Your task to perform on an android device: Go to display settings Image 0: 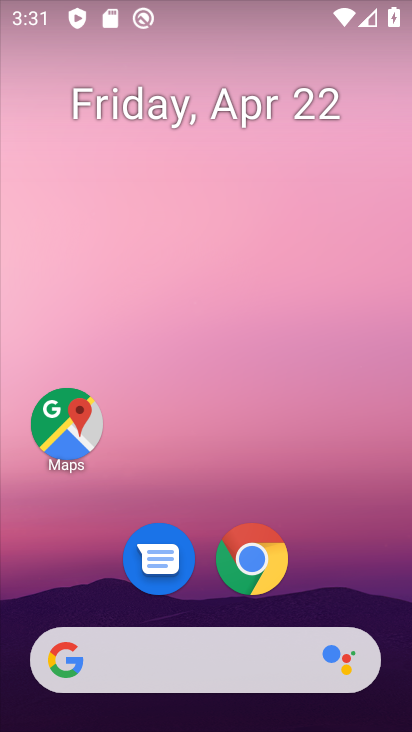
Step 0: drag from (164, 539) to (271, 81)
Your task to perform on an android device: Go to display settings Image 1: 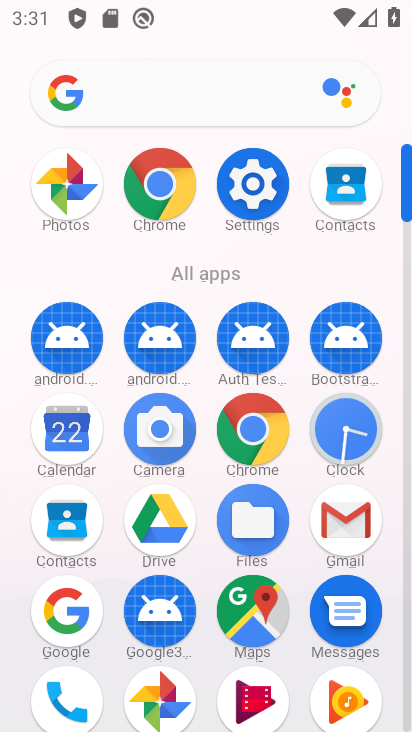
Step 1: click (248, 183)
Your task to perform on an android device: Go to display settings Image 2: 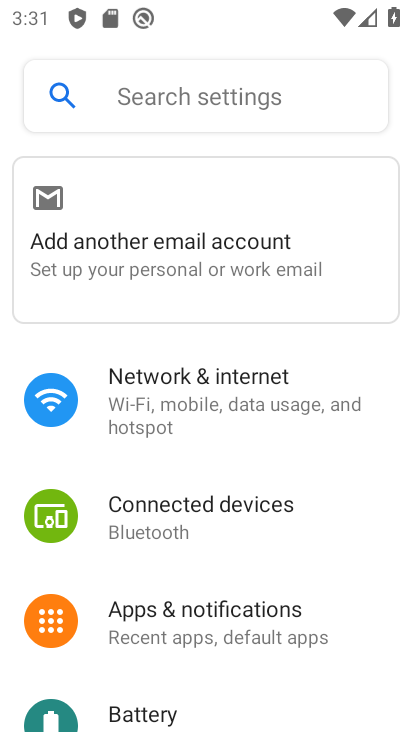
Step 2: drag from (238, 607) to (307, 286)
Your task to perform on an android device: Go to display settings Image 3: 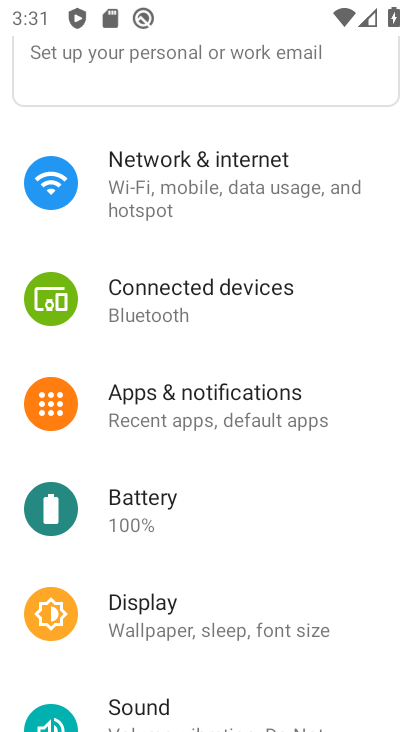
Step 3: click (156, 611)
Your task to perform on an android device: Go to display settings Image 4: 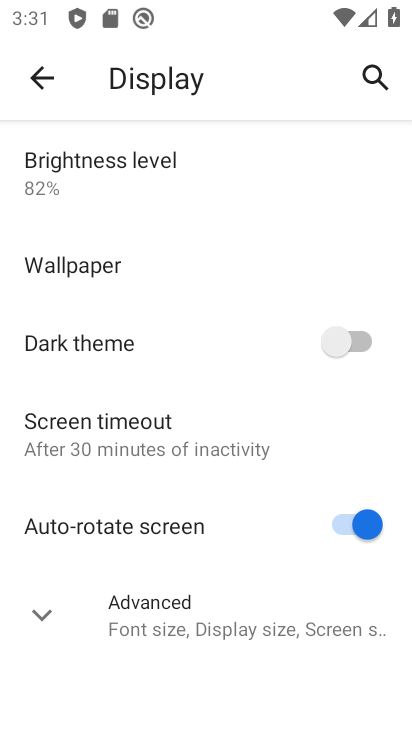
Step 4: task complete